Your task to perform on an android device: Open Google Chrome Image 0: 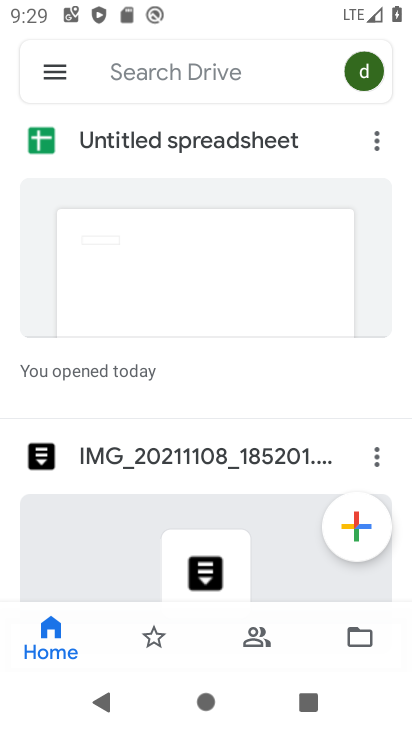
Step 0: press home button
Your task to perform on an android device: Open Google Chrome Image 1: 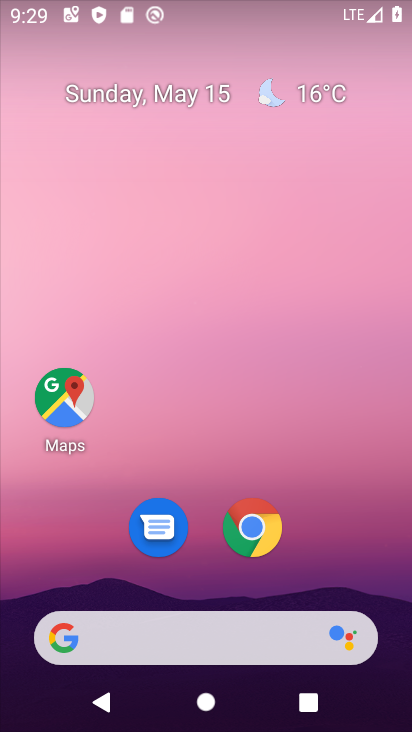
Step 1: click (259, 526)
Your task to perform on an android device: Open Google Chrome Image 2: 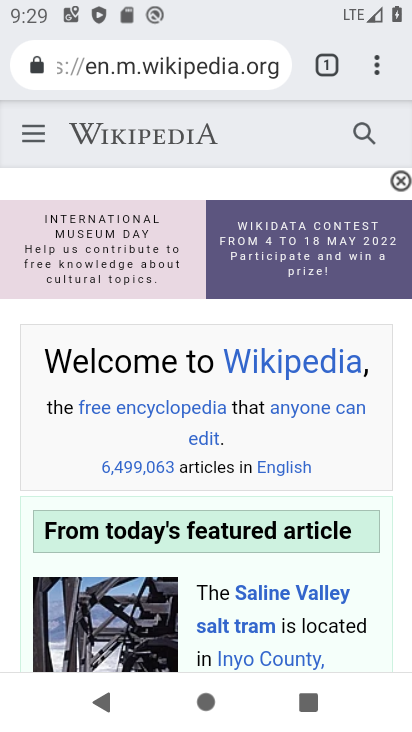
Step 2: task complete